Your task to perform on an android device: toggle improve location accuracy Image 0: 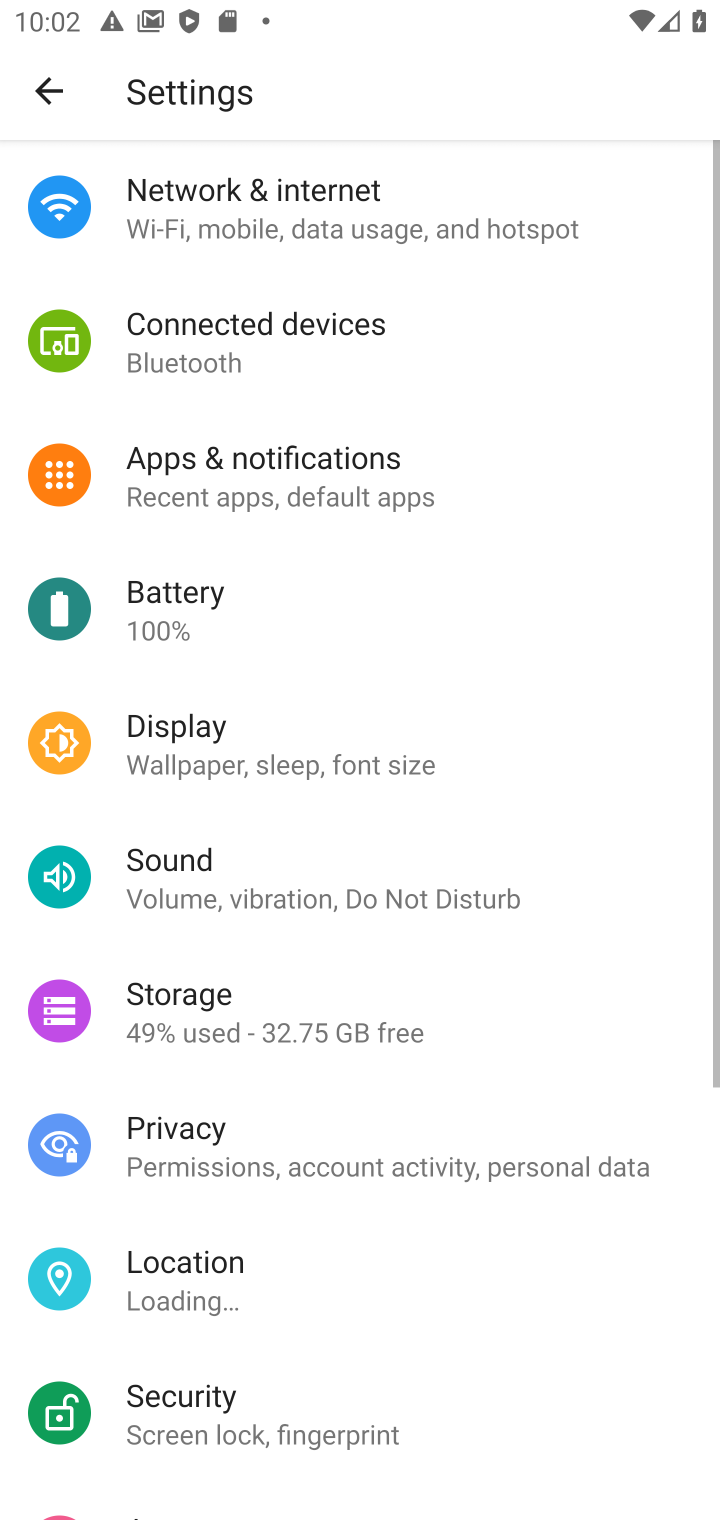
Step 0: press home button
Your task to perform on an android device: toggle improve location accuracy Image 1: 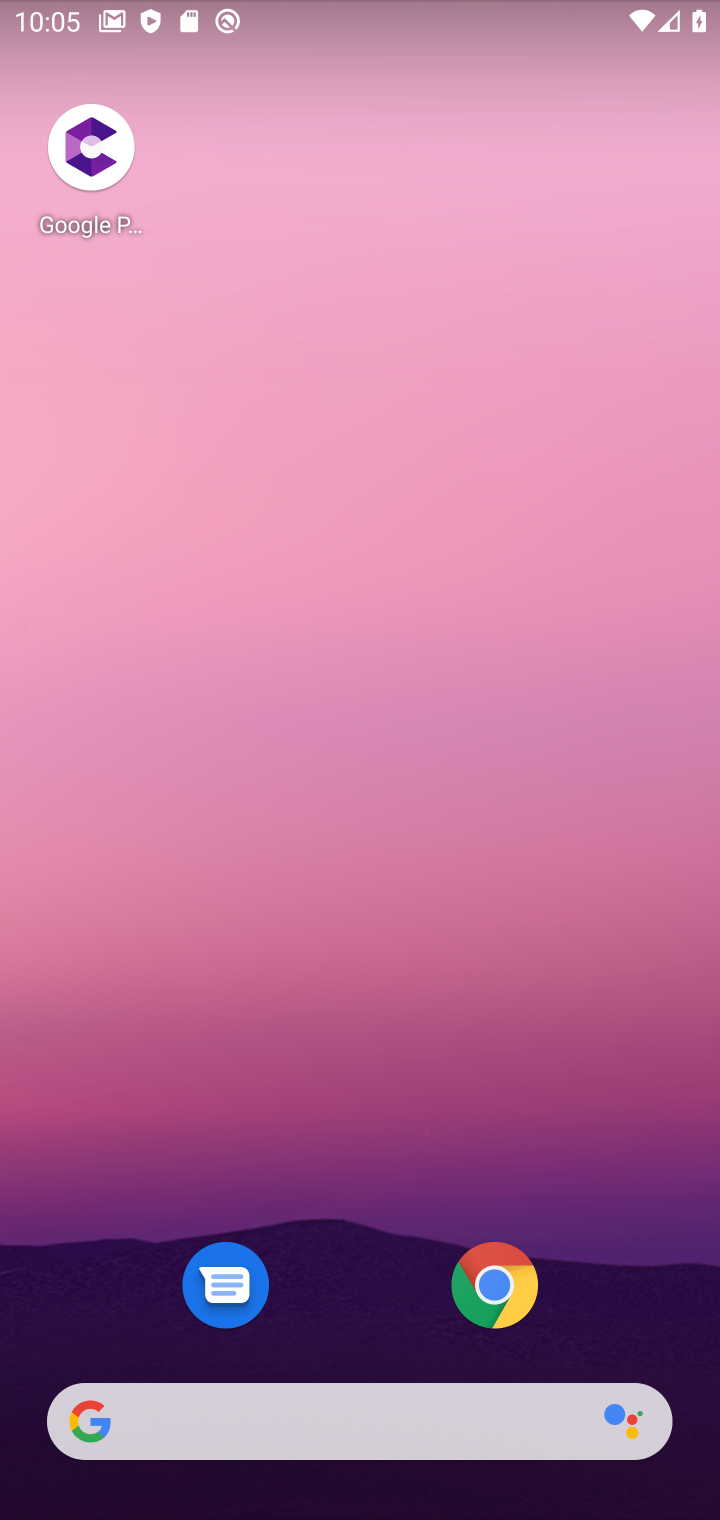
Step 1: drag from (403, 1063) to (587, 49)
Your task to perform on an android device: toggle improve location accuracy Image 2: 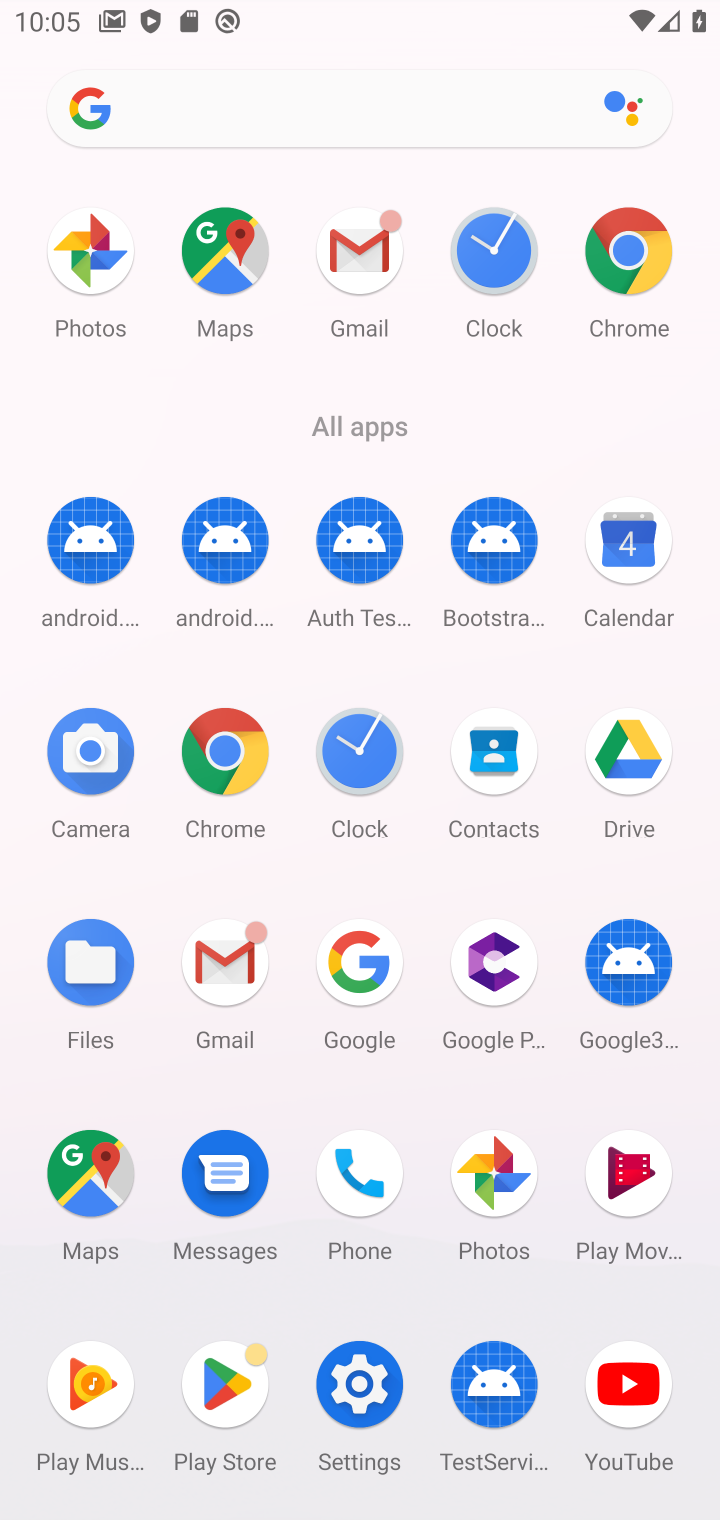
Step 2: click (355, 1380)
Your task to perform on an android device: toggle improve location accuracy Image 3: 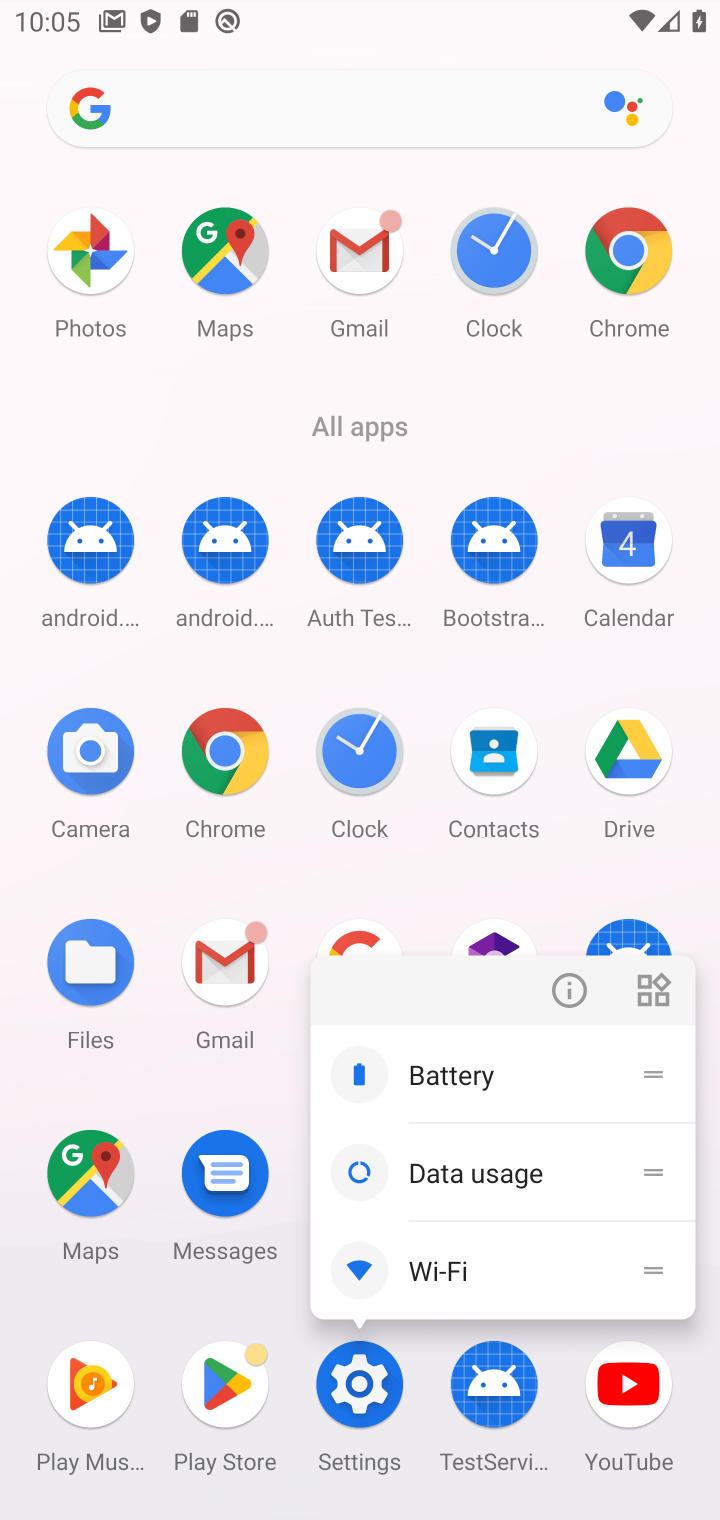
Step 3: click (368, 1386)
Your task to perform on an android device: toggle improve location accuracy Image 4: 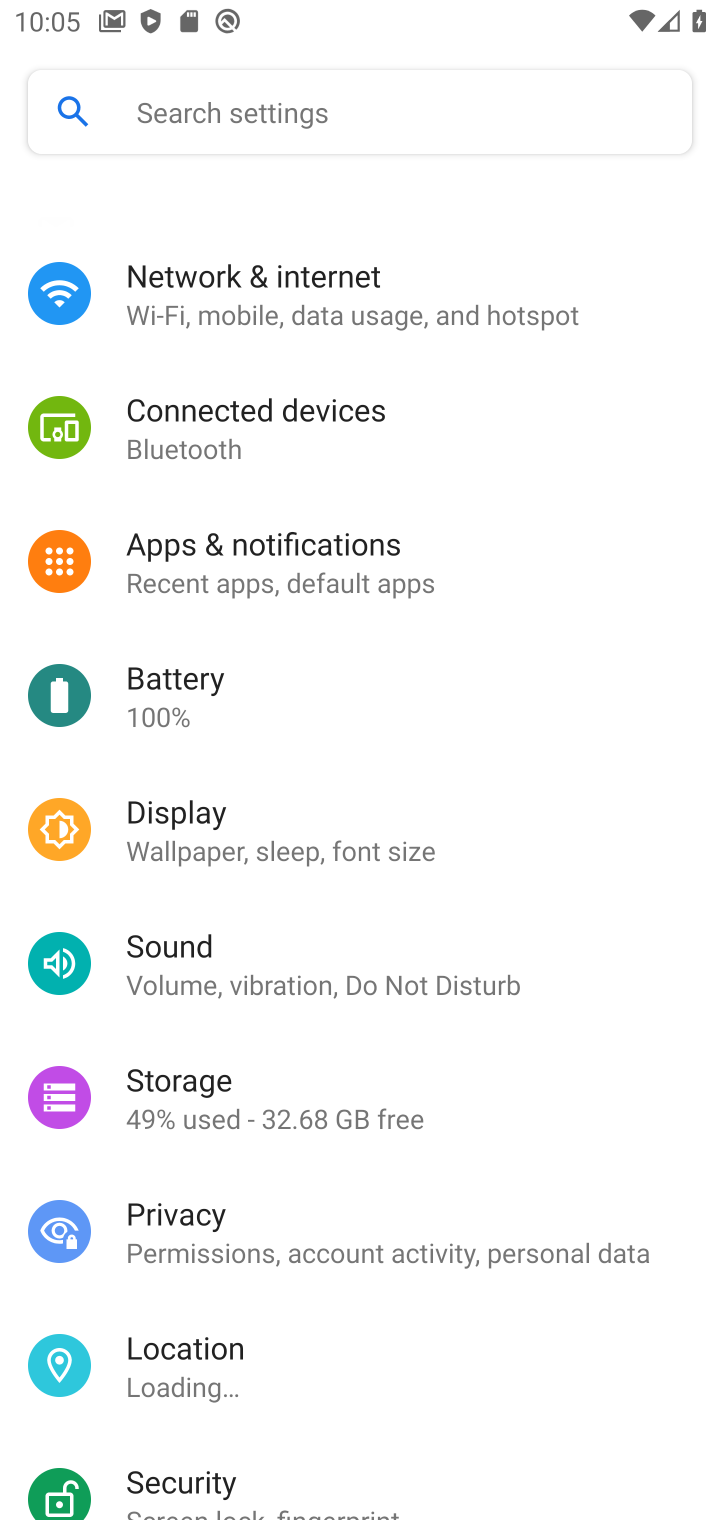
Step 4: drag from (368, 1386) to (540, 532)
Your task to perform on an android device: toggle improve location accuracy Image 5: 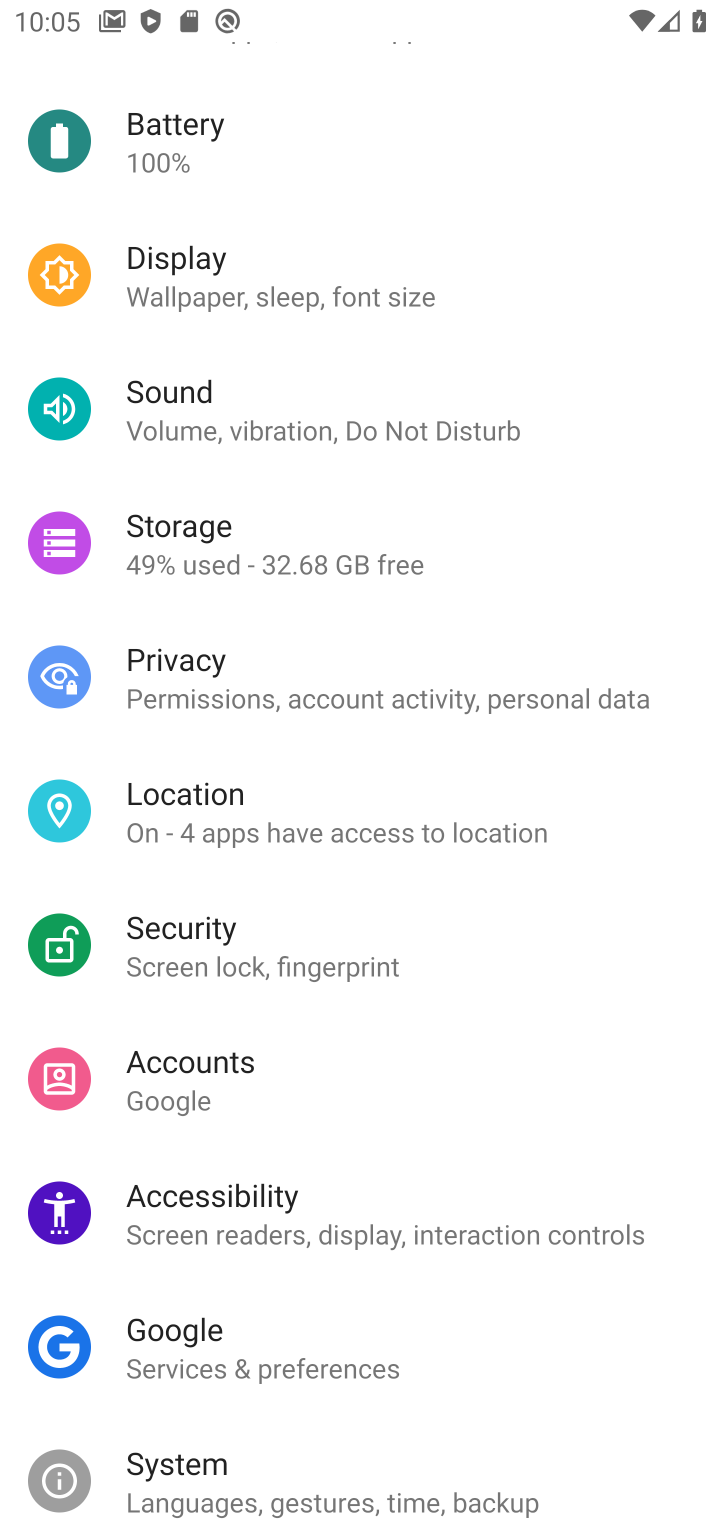
Step 5: click (186, 840)
Your task to perform on an android device: toggle improve location accuracy Image 6: 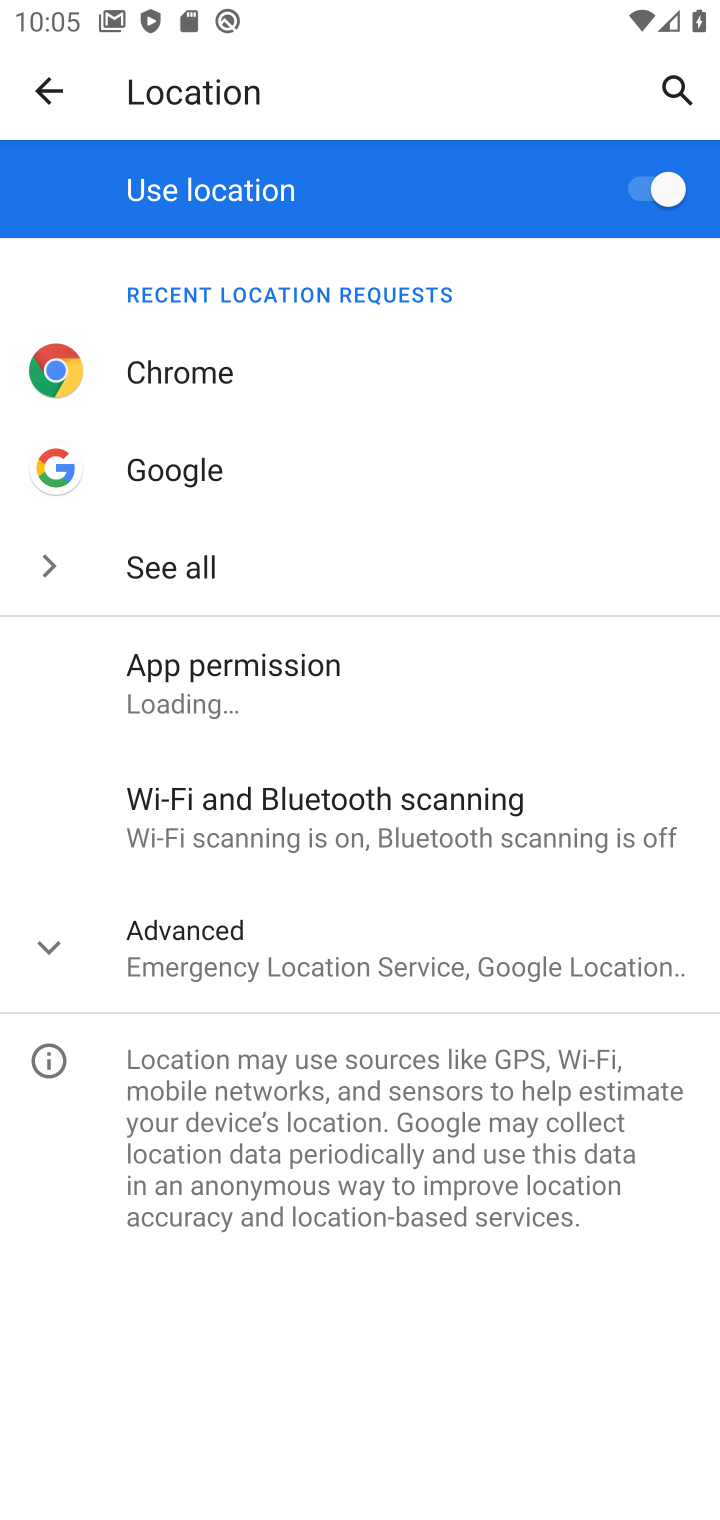
Step 6: click (269, 966)
Your task to perform on an android device: toggle improve location accuracy Image 7: 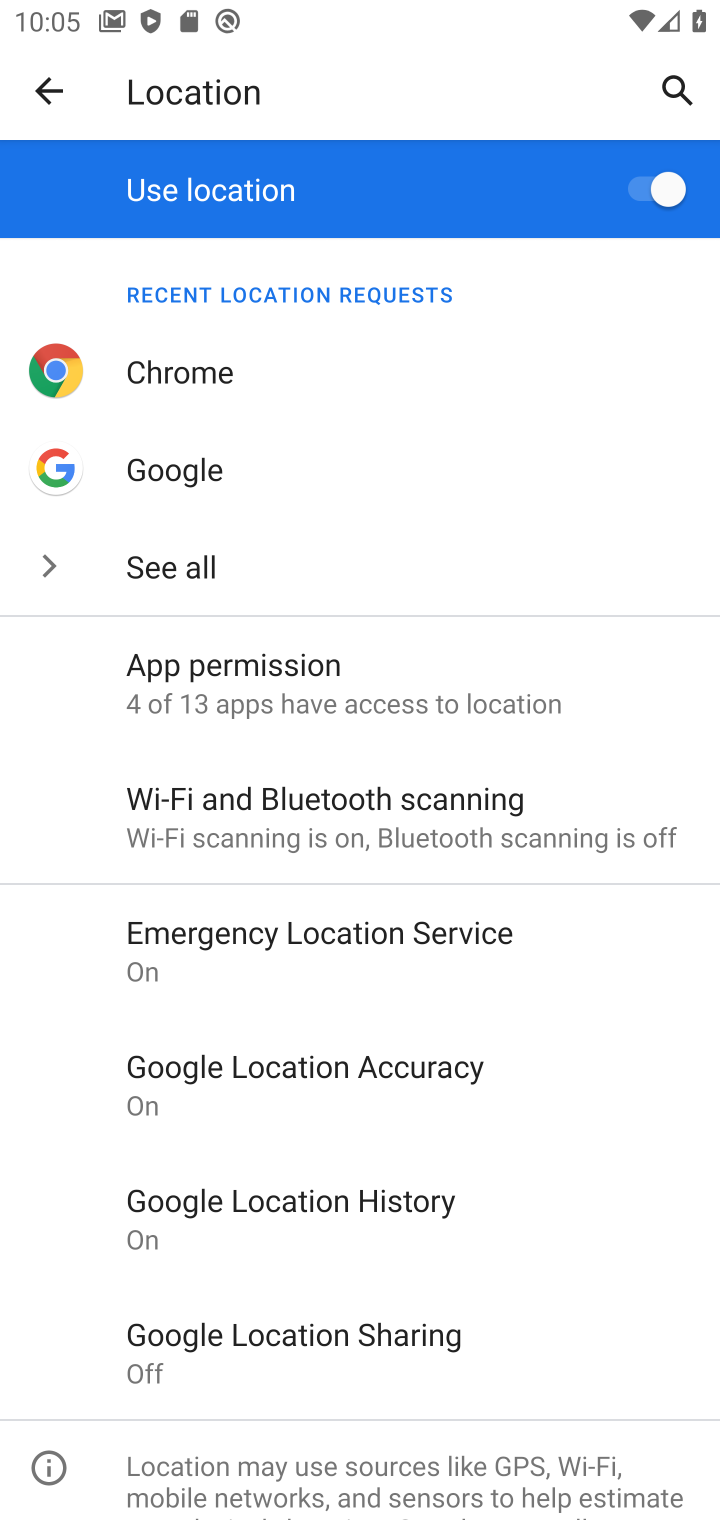
Step 7: click (378, 1059)
Your task to perform on an android device: toggle improve location accuracy Image 8: 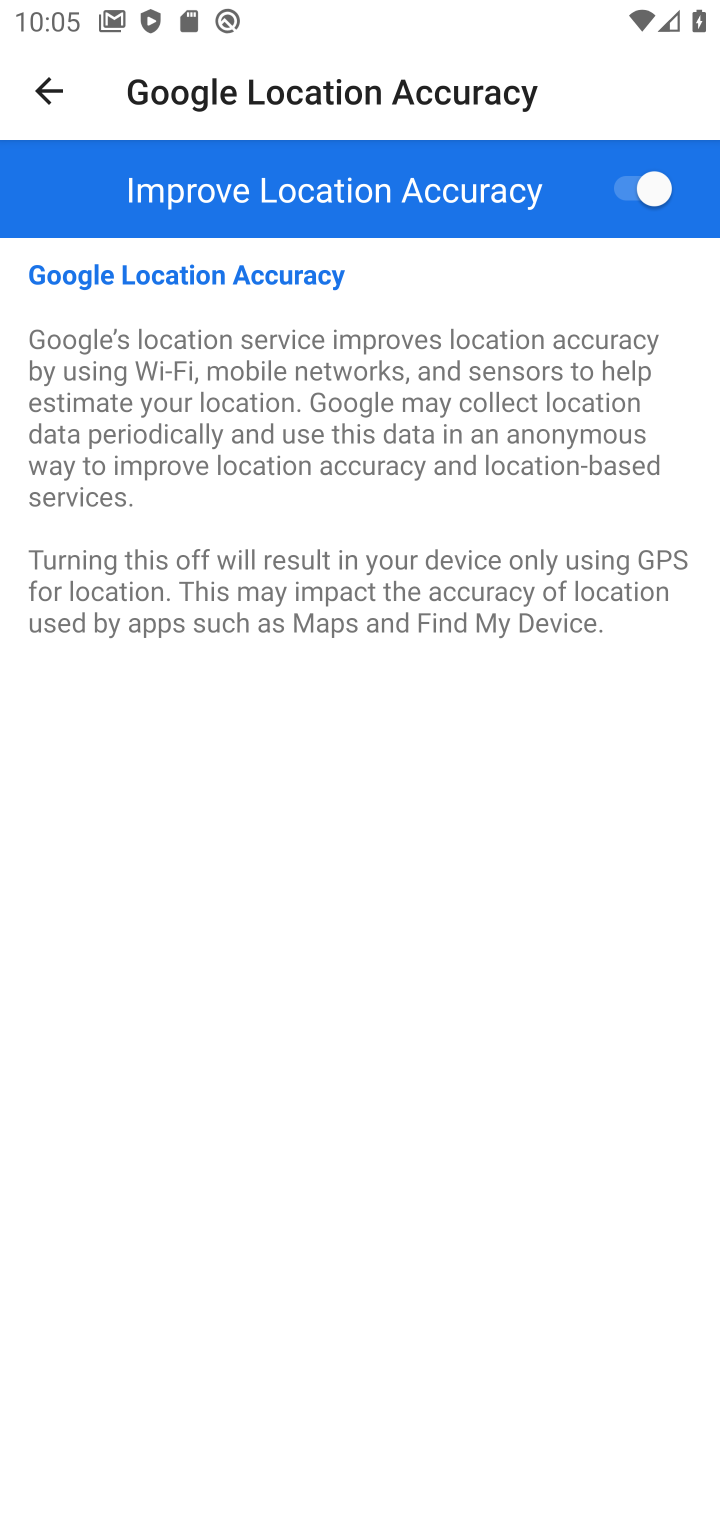
Step 8: click (534, 211)
Your task to perform on an android device: toggle improve location accuracy Image 9: 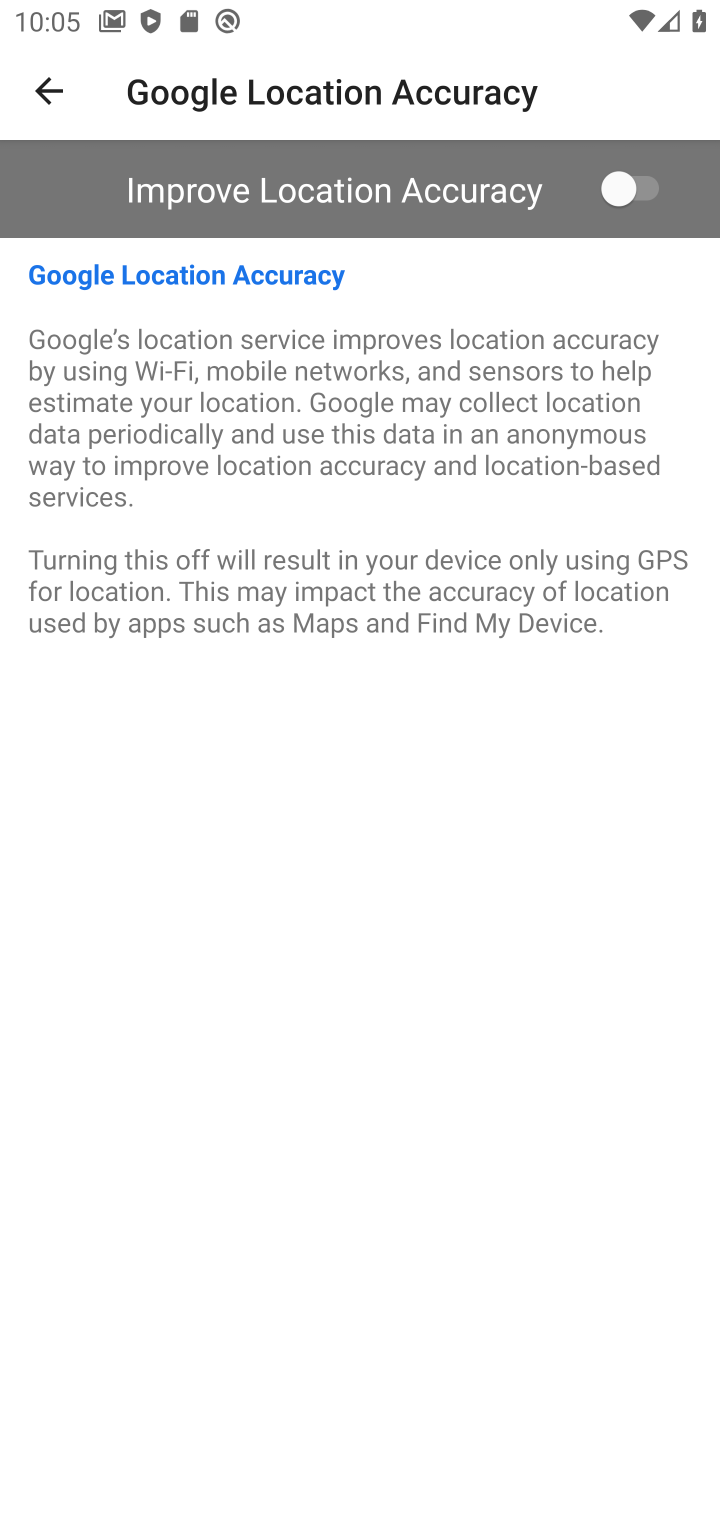
Step 9: task complete